Your task to perform on an android device: open device folders in google photos Image 0: 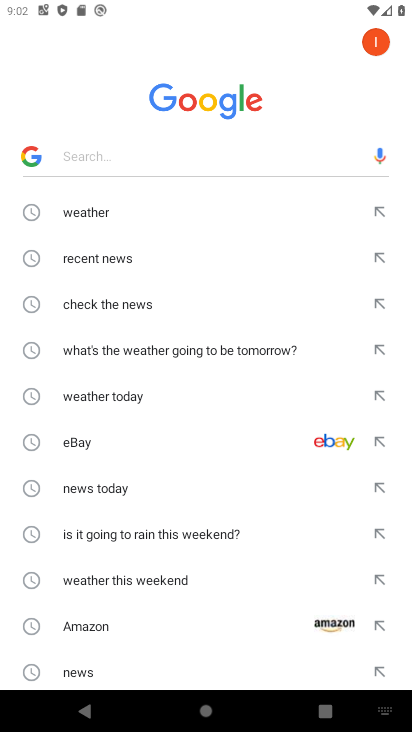
Step 0: press home button
Your task to perform on an android device: open device folders in google photos Image 1: 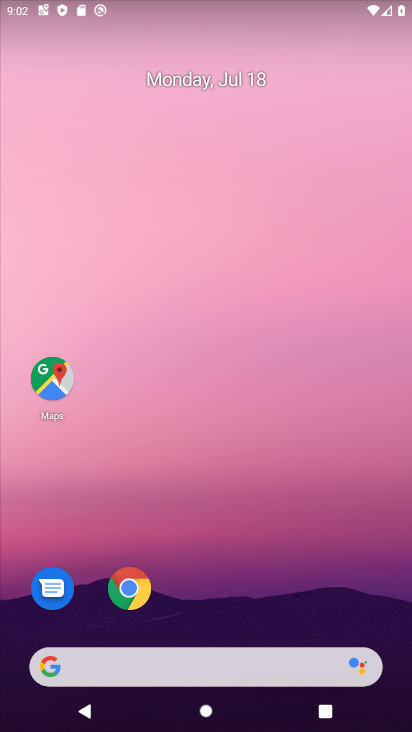
Step 1: drag from (286, 605) to (303, 65)
Your task to perform on an android device: open device folders in google photos Image 2: 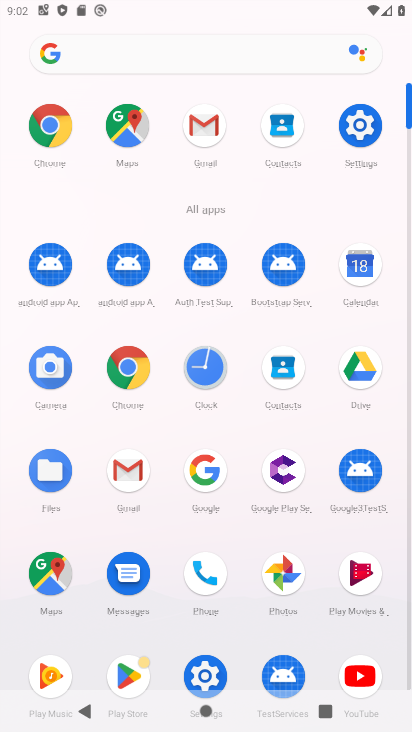
Step 2: click (268, 578)
Your task to perform on an android device: open device folders in google photos Image 3: 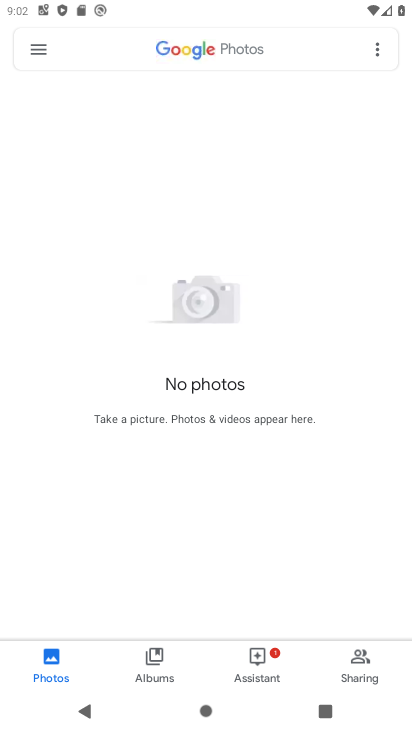
Step 3: click (41, 45)
Your task to perform on an android device: open device folders in google photos Image 4: 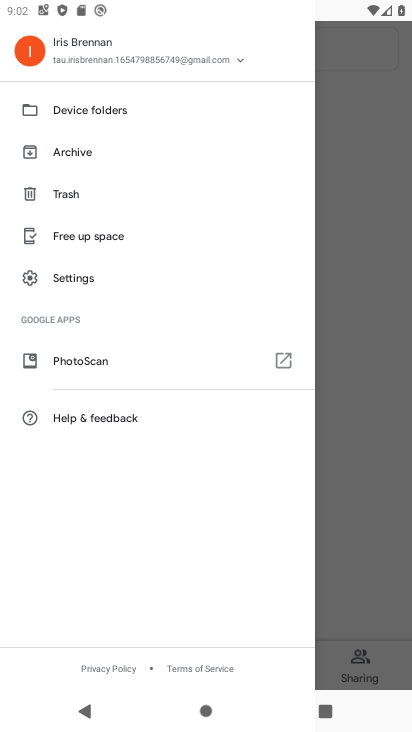
Step 4: click (64, 115)
Your task to perform on an android device: open device folders in google photos Image 5: 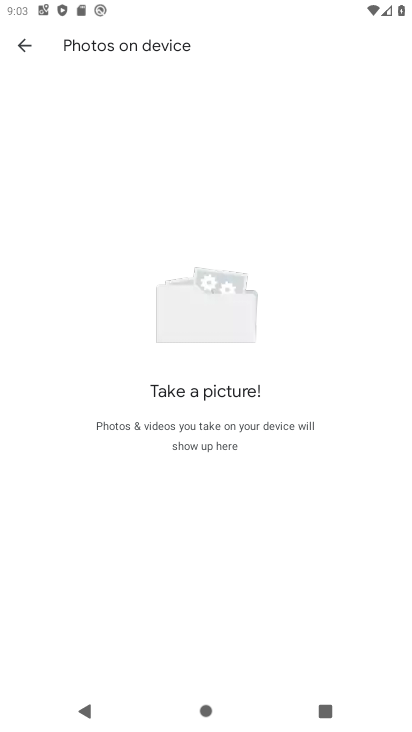
Step 5: task complete